Your task to perform on an android device: Is it going to rain this weekend? Image 0: 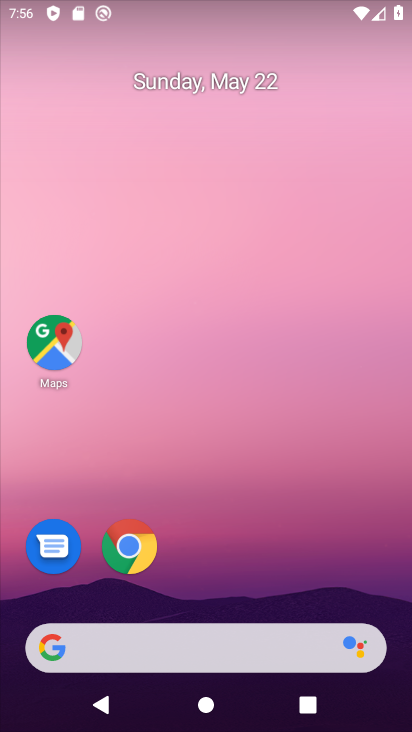
Step 0: press home button
Your task to perform on an android device: Is it going to rain this weekend? Image 1: 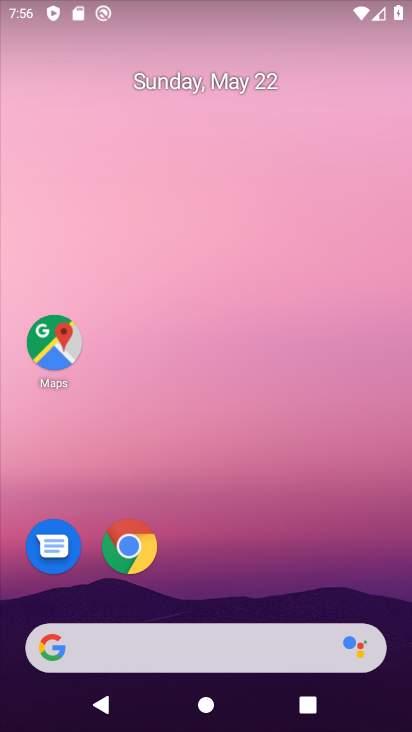
Step 1: drag from (171, 648) to (350, 49)
Your task to perform on an android device: Is it going to rain this weekend? Image 2: 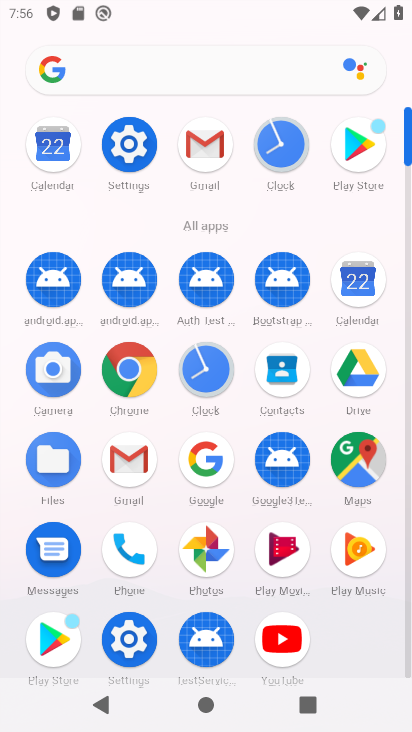
Step 2: click (215, 464)
Your task to perform on an android device: Is it going to rain this weekend? Image 3: 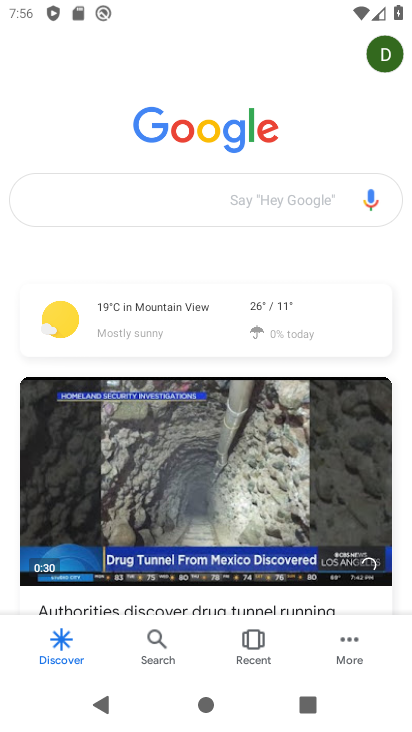
Step 3: click (262, 301)
Your task to perform on an android device: Is it going to rain this weekend? Image 4: 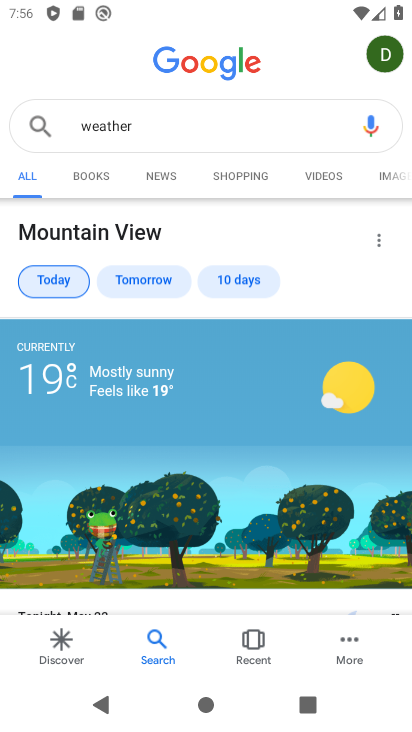
Step 4: click (233, 276)
Your task to perform on an android device: Is it going to rain this weekend? Image 5: 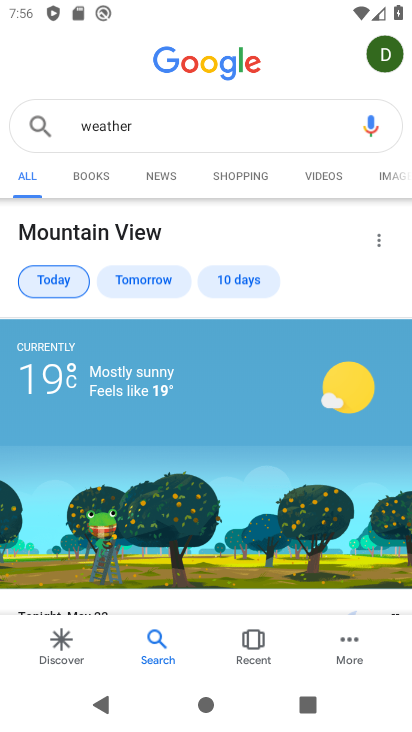
Step 5: click (242, 279)
Your task to perform on an android device: Is it going to rain this weekend? Image 6: 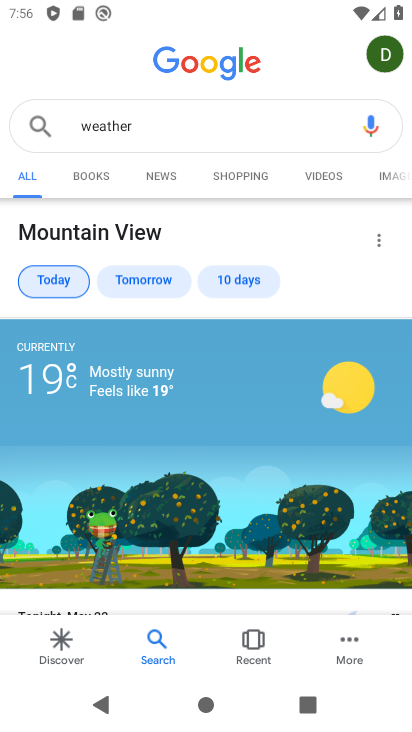
Step 6: click (234, 283)
Your task to perform on an android device: Is it going to rain this weekend? Image 7: 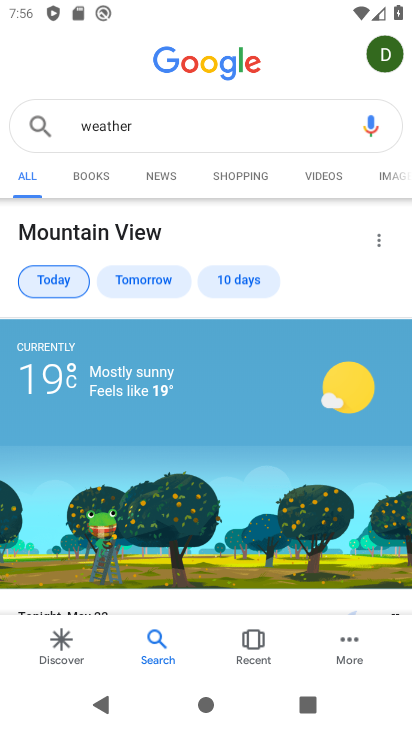
Step 7: click (226, 280)
Your task to perform on an android device: Is it going to rain this weekend? Image 8: 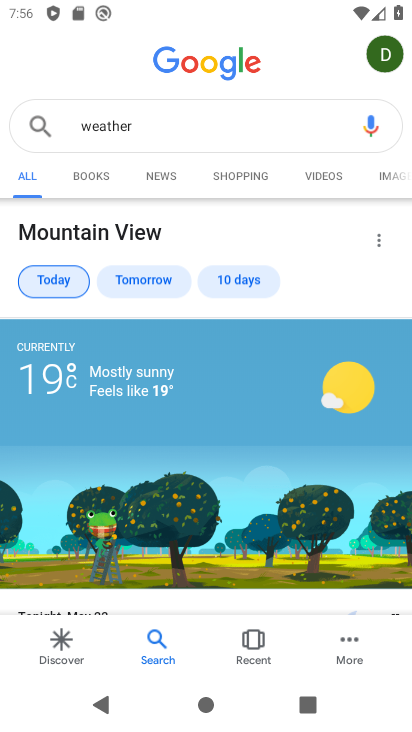
Step 8: click (151, 280)
Your task to perform on an android device: Is it going to rain this weekend? Image 9: 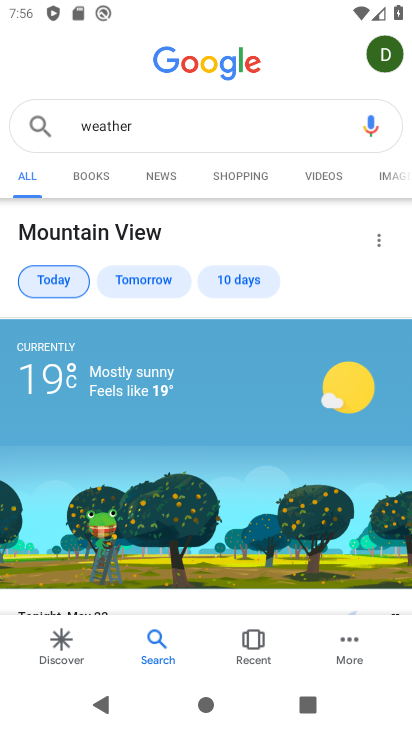
Step 9: click (150, 280)
Your task to perform on an android device: Is it going to rain this weekend? Image 10: 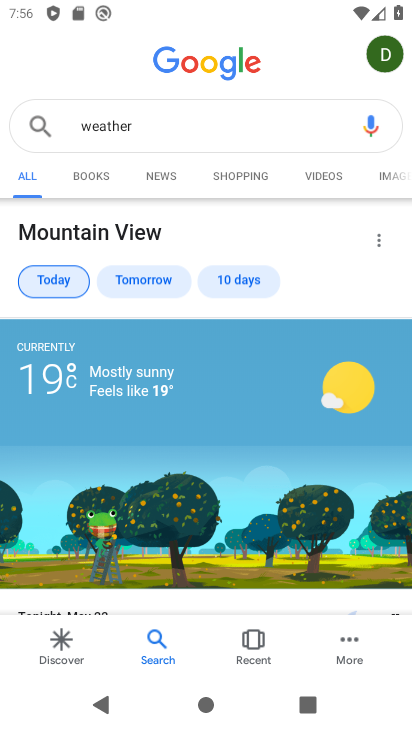
Step 10: drag from (205, 510) to (350, 244)
Your task to perform on an android device: Is it going to rain this weekend? Image 11: 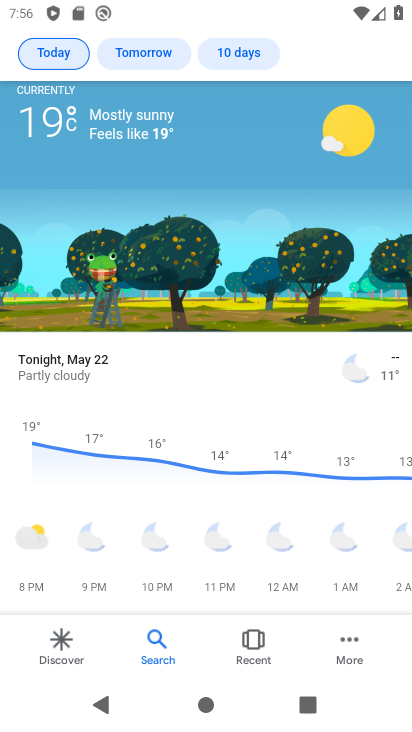
Step 11: drag from (319, 203) to (289, 439)
Your task to perform on an android device: Is it going to rain this weekend? Image 12: 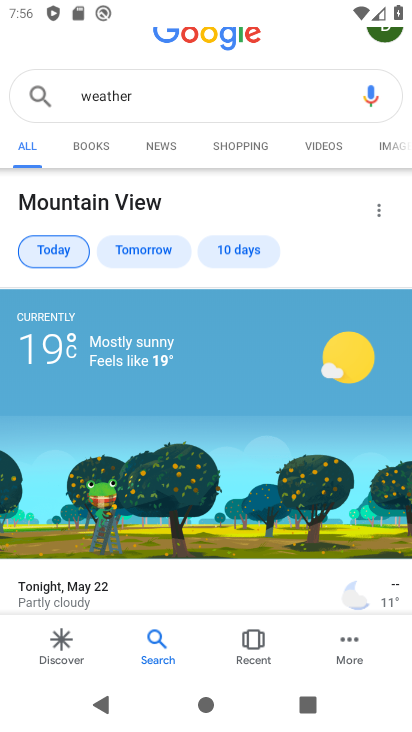
Step 12: click (251, 254)
Your task to perform on an android device: Is it going to rain this weekend? Image 13: 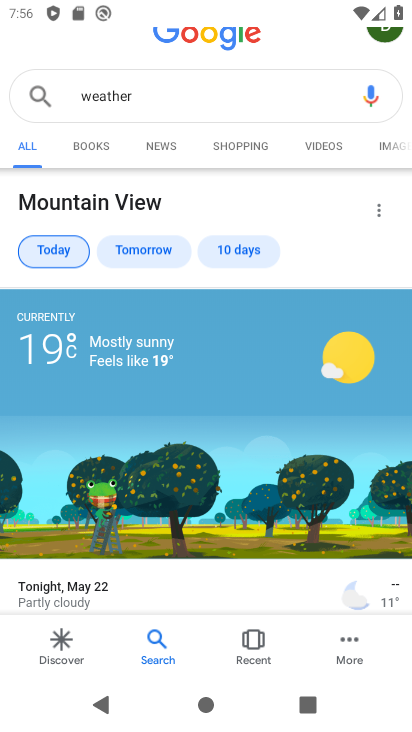
Step 13: click (238, 252)
Your task to perform on an android device: Is it going to rain this weekend? Image 14: 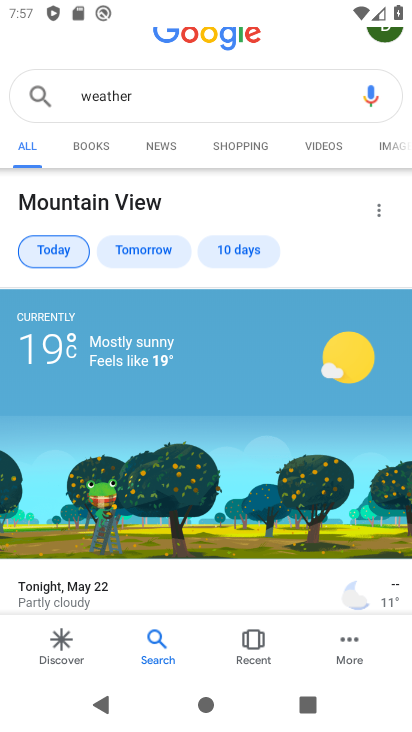
Step 14: click (238, 251)
Your task to perform on an android device: Is it going to rain this weekend? Image 15: 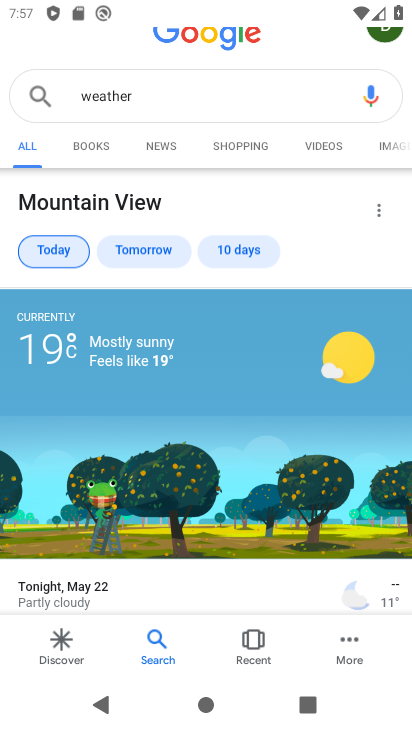
Step 15: click (239, 248)
Your task to perform on an android device: Is it going to rain this weekend? Image 16: 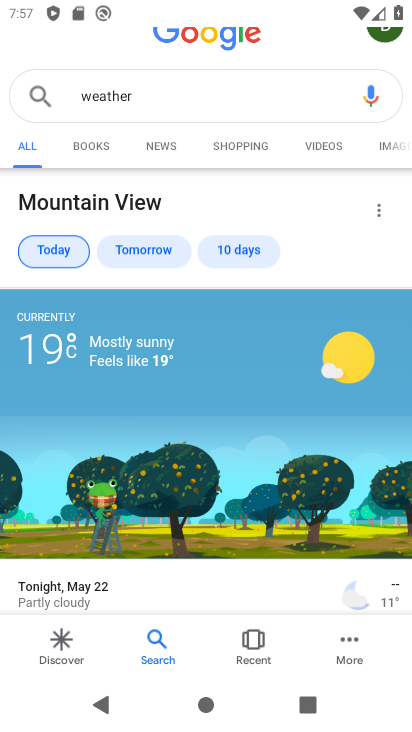
Step 16: click (239, 248)
Your task to perform on an android device: Is it going to rain this weekend? Image 17: 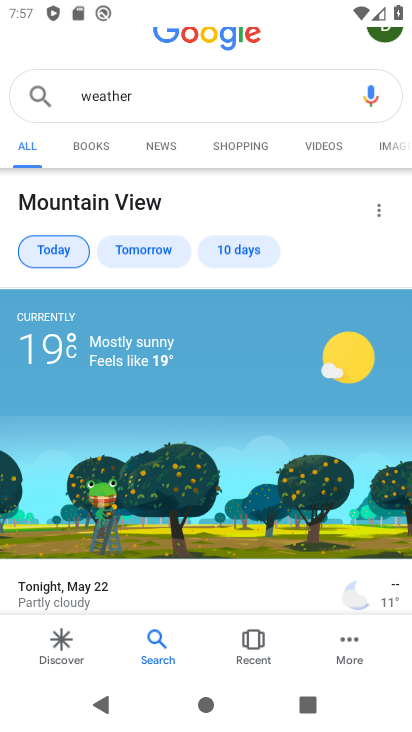
Step 17: task complete